Your task to perform on an android device: Go to settings Image 0: 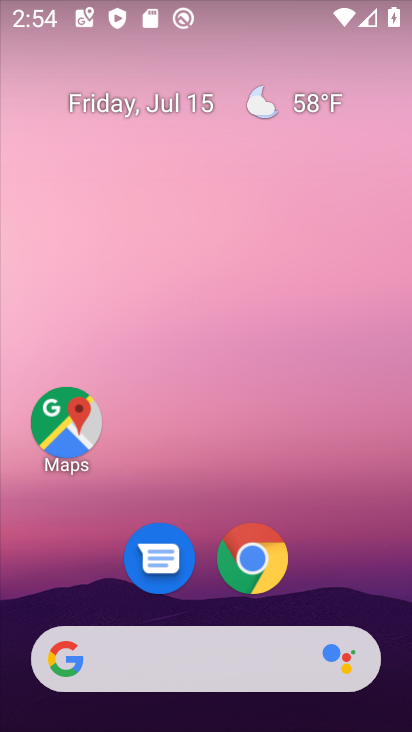
Step 0: drag from (344, 564) to (367, 92)
Your task to perform on an android device: Go to settings Image 1: 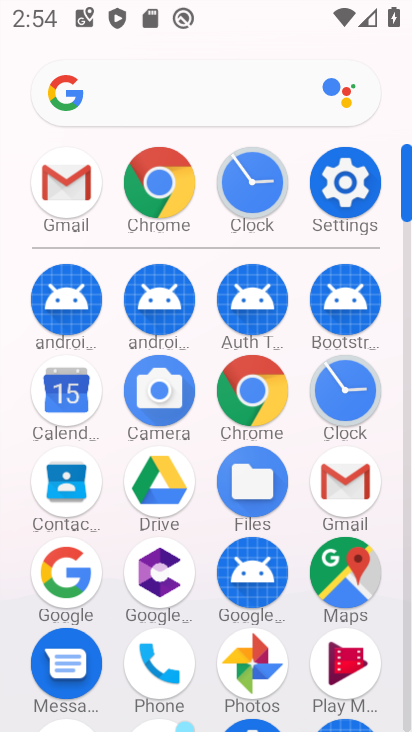
Step 1: click (345, 203)
Your task to perform on an android device: Go to settings Image 2: 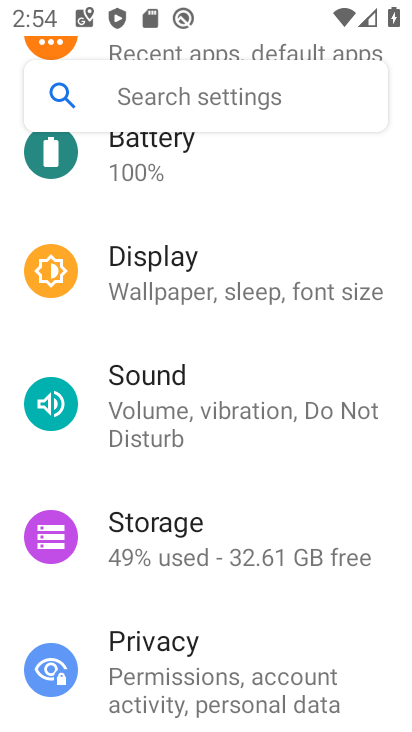
Step 2: task complete